Your task to perform on an android device: toggle priority inbox in the gmail app Image 0: 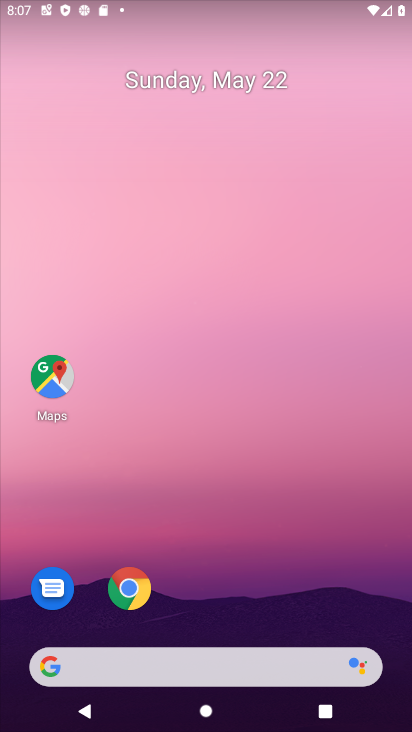
Step 0: drag from (243, 529) to (207, 21)
Your task to perform on an android device: toggle priority inbox in the gmail app Image 1: 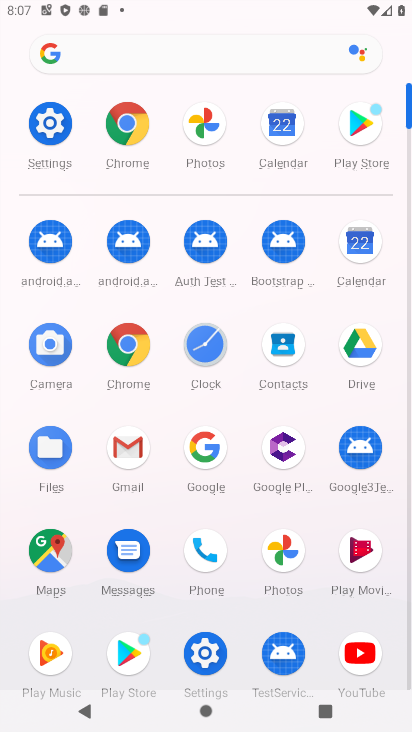
Step 1: click (129, 443)
Your task to perform on an android device: toggle priority inbox in the gmail app Image 2: 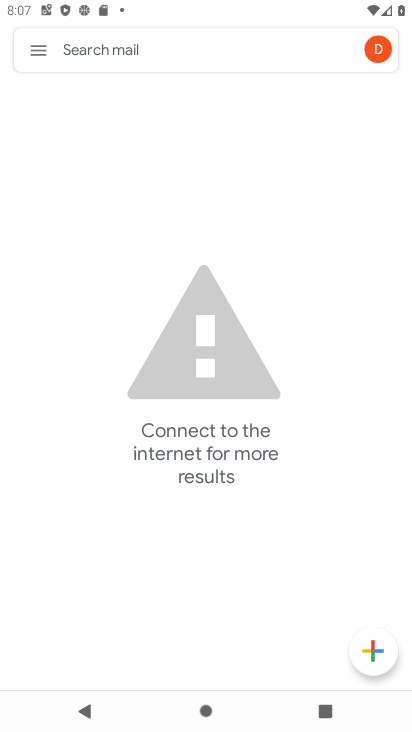
Step 2: click (30, 46)
Your task to perform on an android device: toggle priority inbox in the gmail app Image 3: 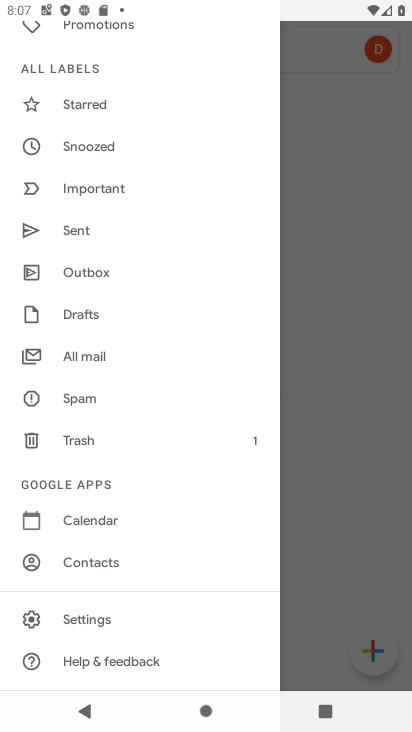
Step 3: click (95, 613)
Your task to perform on an android device: toggle priority inbox in the gmail app Image 4: 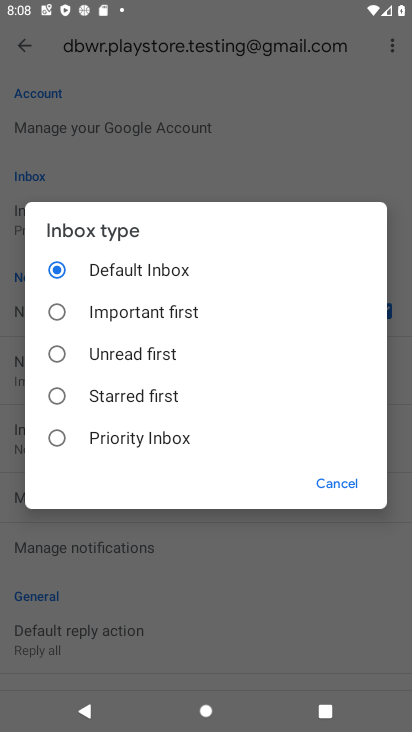
Step 4: click (56, 431)
Your task to perform on an android device: toggle priority inbox in the gmail app Image 5: 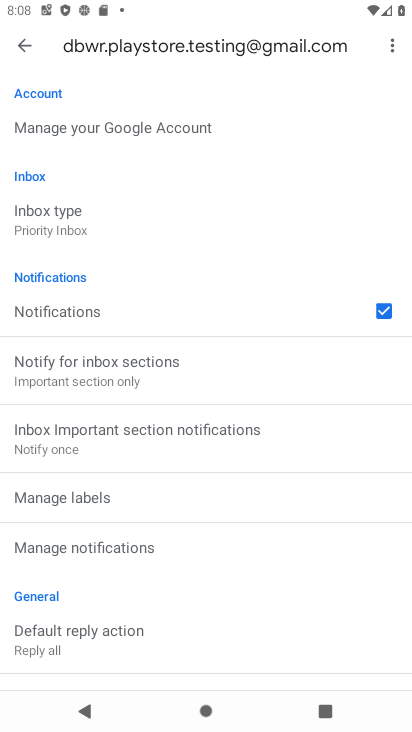
Step 5: task complete